Your task to perform on an android device: Search for "custom wallet" on Etsy. Image 0: 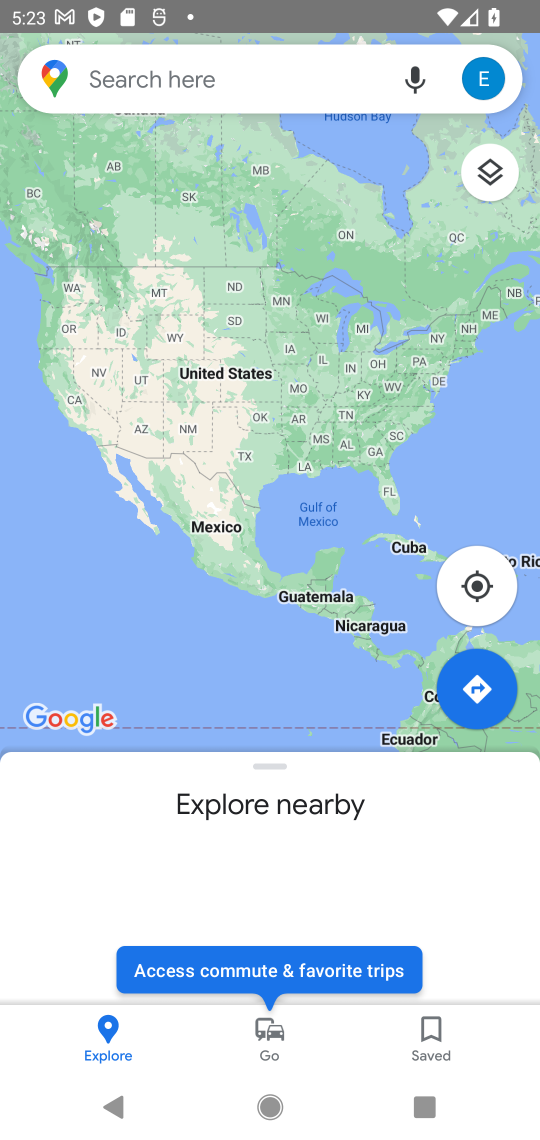
Step 0: press home button
Your task to perform on an android device: Search for "custom wallet" on Etsy. Image 1: 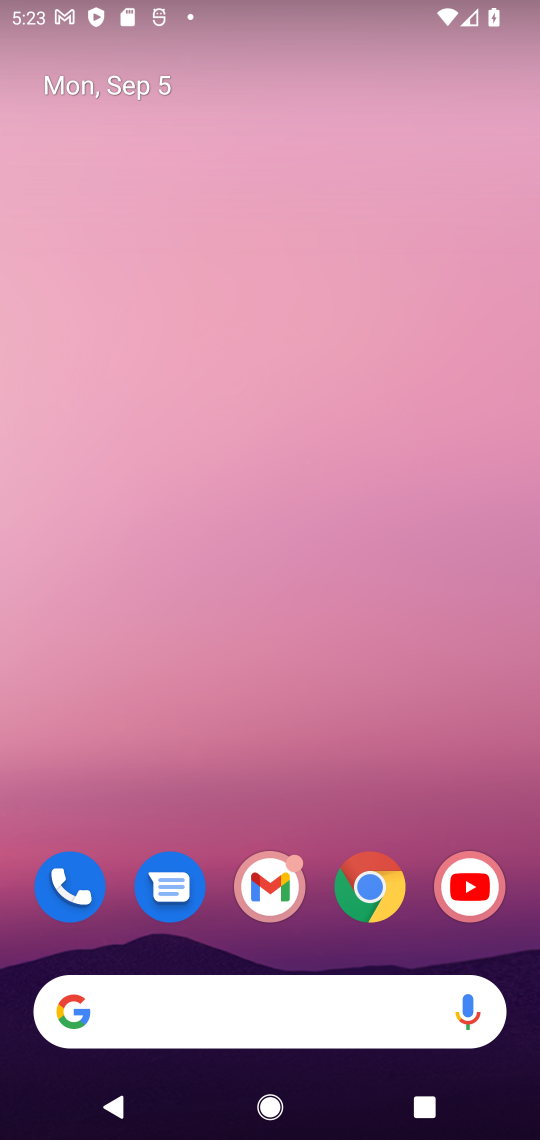
Step 1: drag from (253, 458) to (176, 97)
Your task to perform on an android device: Search for "custom wallet" on Etsy. Image 2: 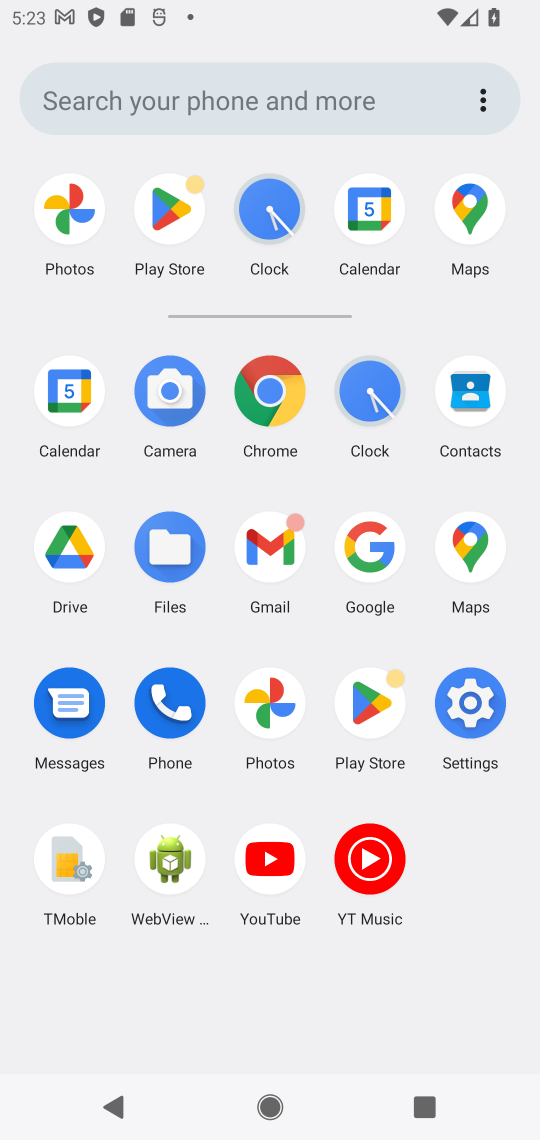
Step 2: click (273, 391)
Your task to perform on an android device: Search for "custom wallet" on Etsy. Image 3: 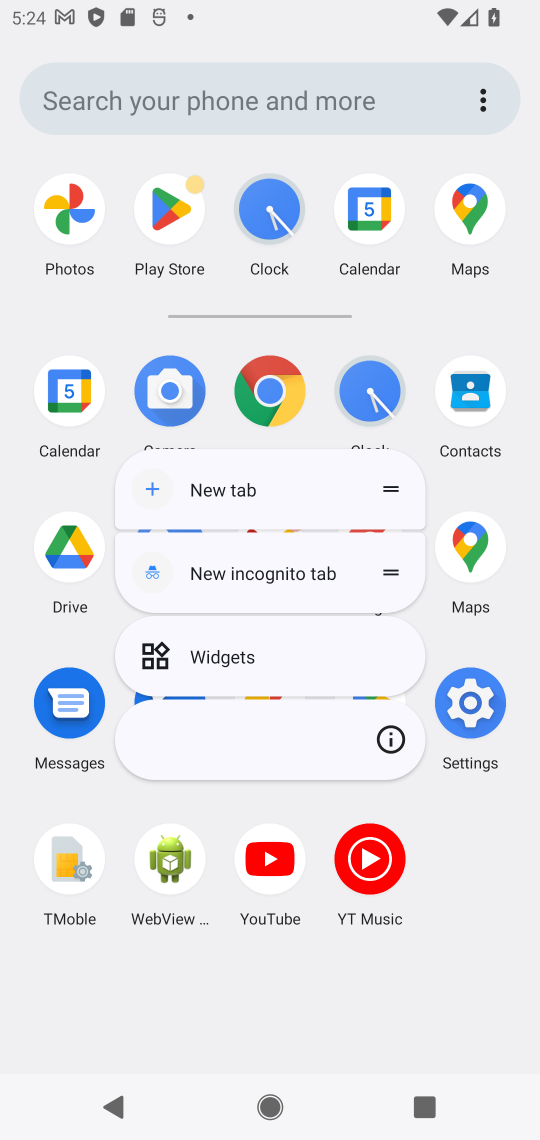
Step 3: click (273, 388)
Your task to perform on an android device: Search for "custom wallet" on Etsy. Image 4: 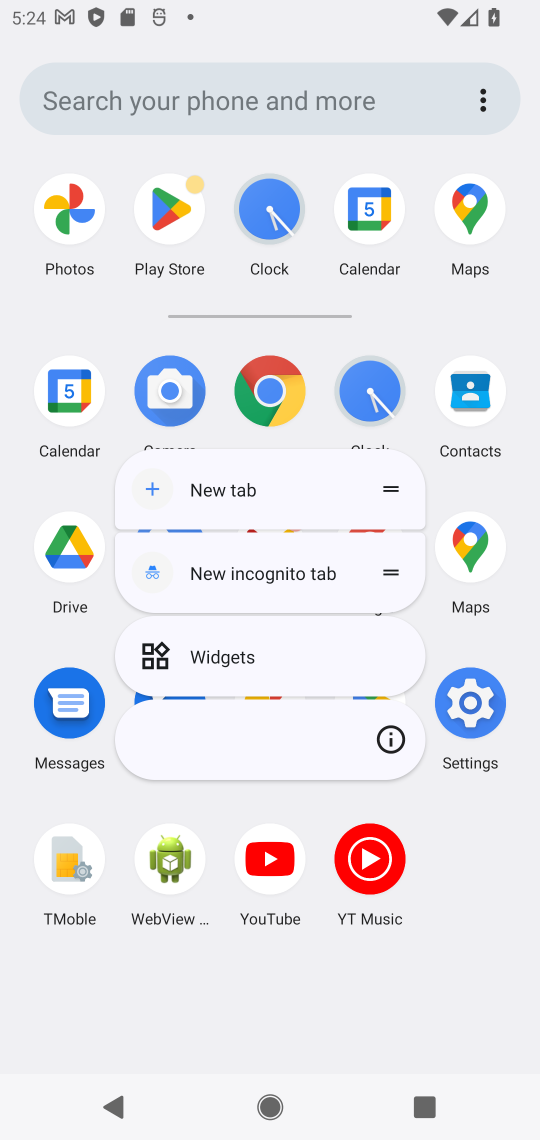
Step 4: click (261, 399)
Your task to perform on an android device: Search for "custom wallet" on Etsy. Image 5: 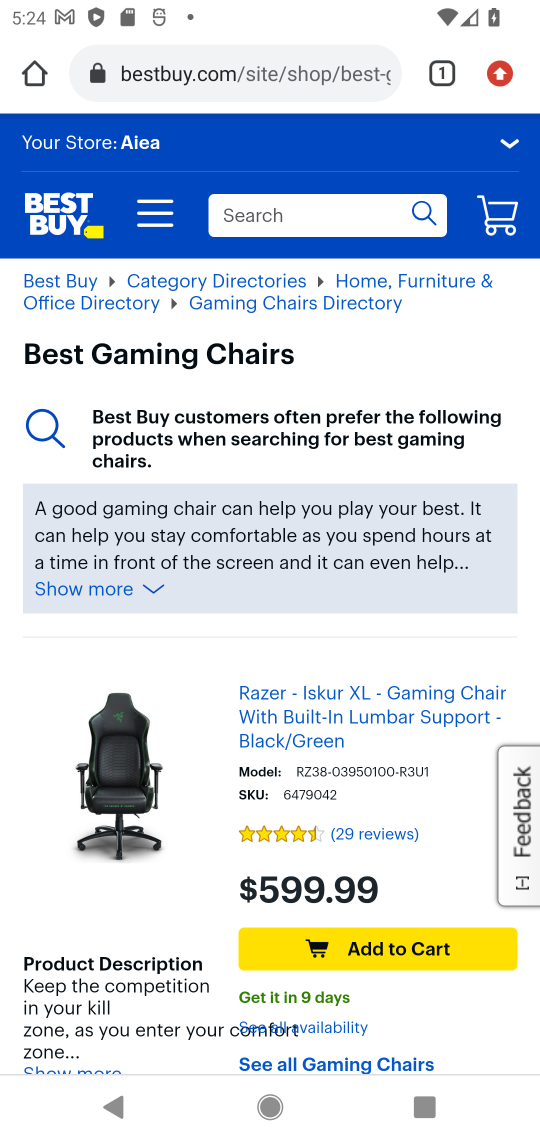
Step 5: click (314, 72)
Your task to perform on an android device: Search for "custom wallet" on Etsy. Image 6: 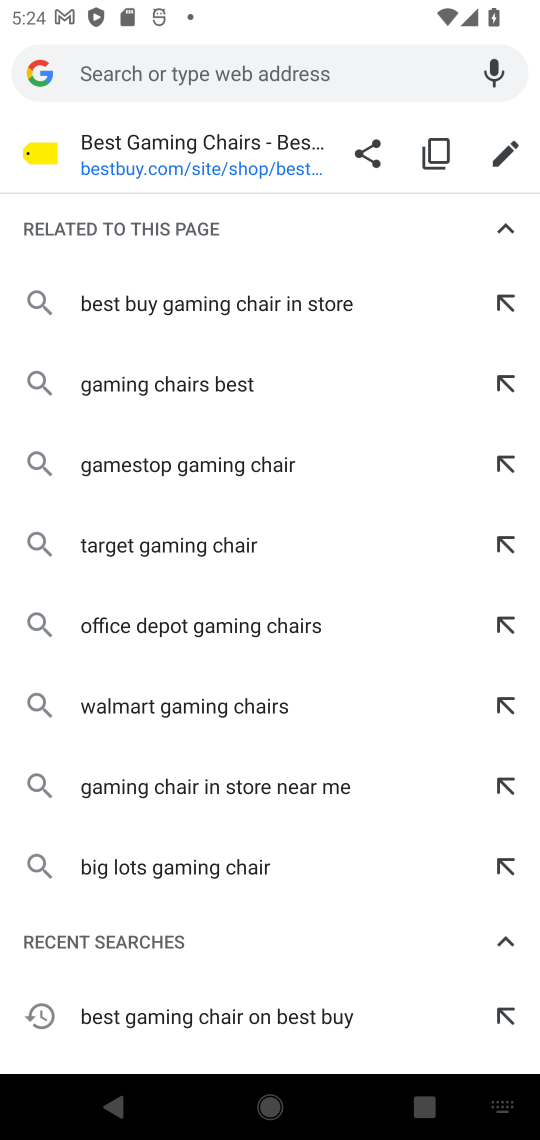
Step 6: type "custom wallet on Etsy"
Your task to perform on an android device: Search for "custom wallet" on Etsy. Image 7: 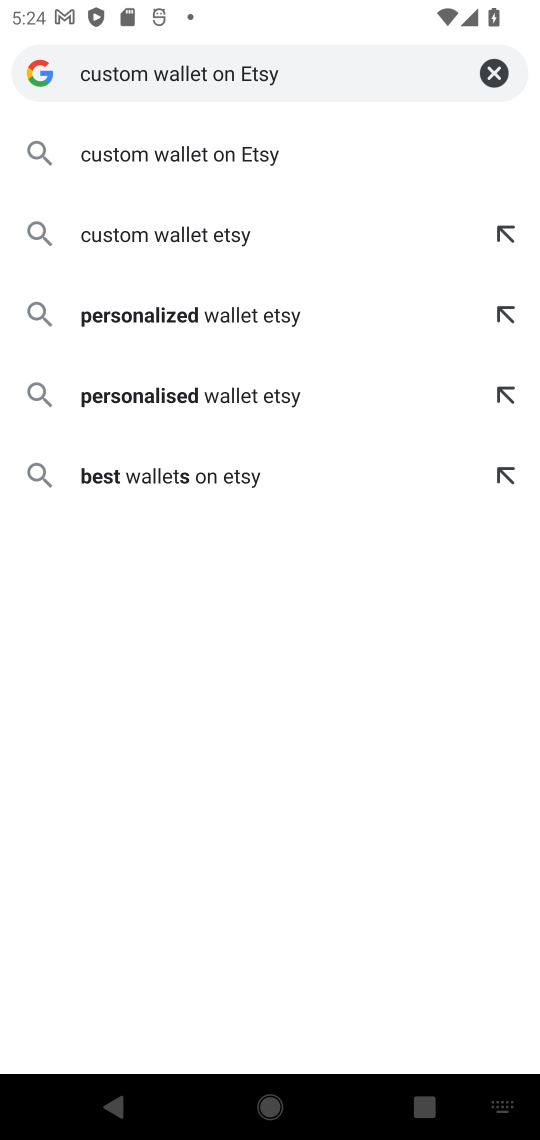
Step 7: press enter
Your task to perform on an android device: Search for "custom wallet" on Etsy. Image 8: 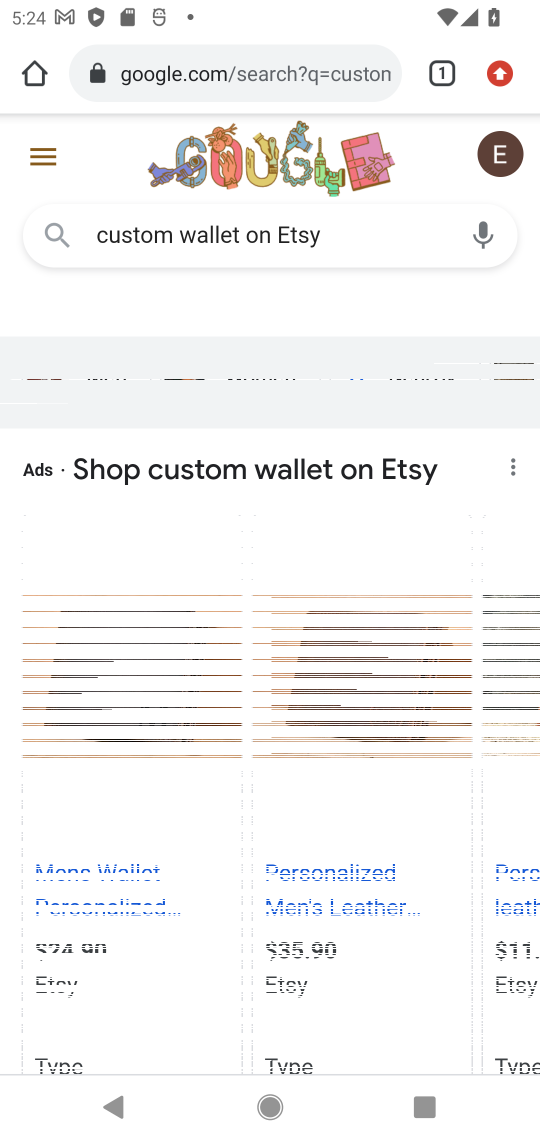
Step 8: drag from (351, 164) to (347, 29)
Your task to perform on an android device: Search for "custom wallet" on Etsy. Image 9: 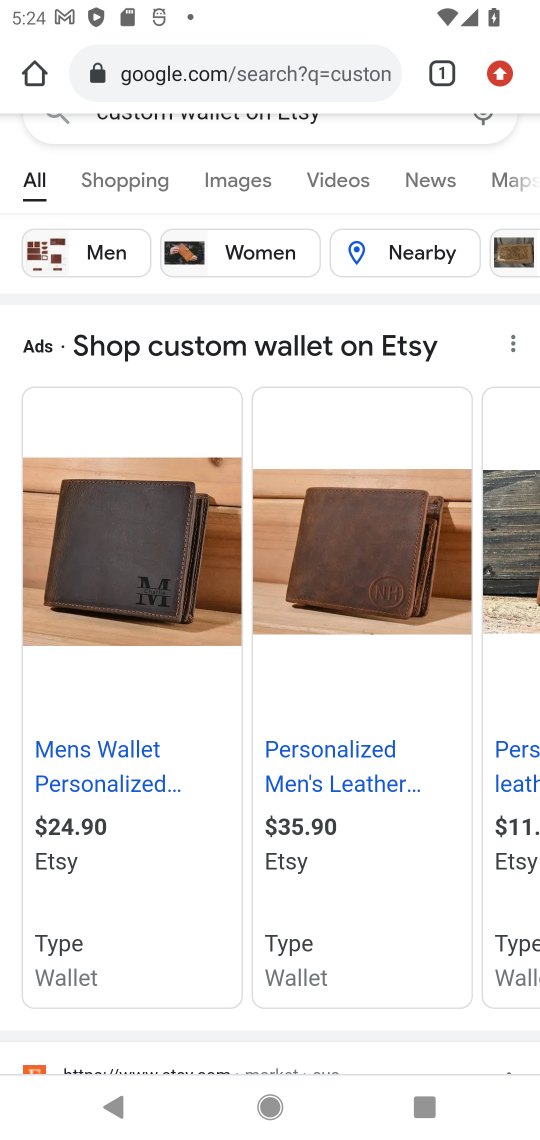
Step 9: drag from (326, 851) to (383, 179)
Your task to perform on an android device: Search for "custom wallet" on Etsy. Image 10: 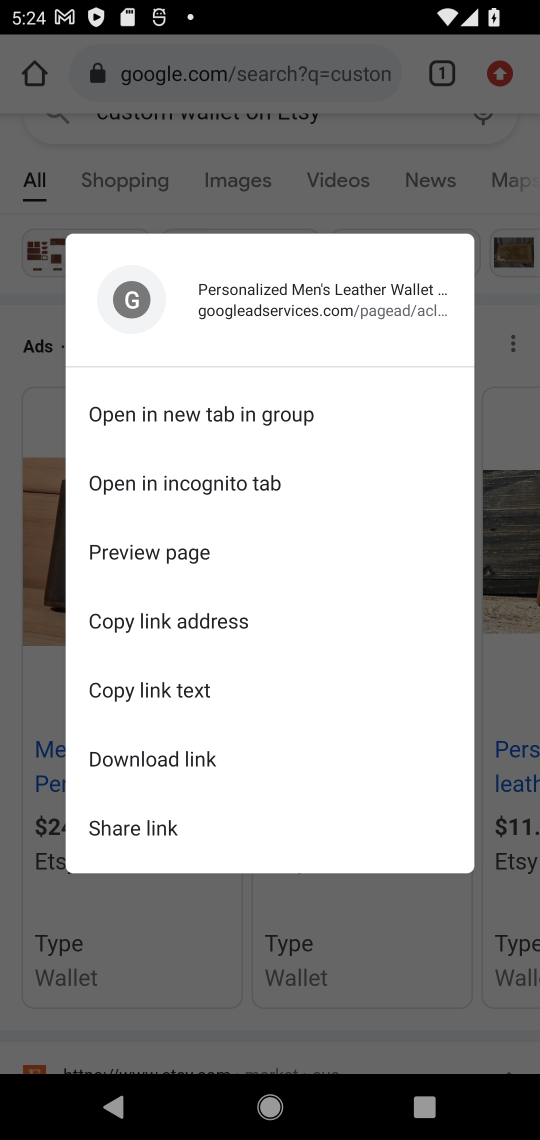
Step 10: click (493, 695)
Your task to perform on an android device: Search for "custom wallet" on Etsy. Image 11: 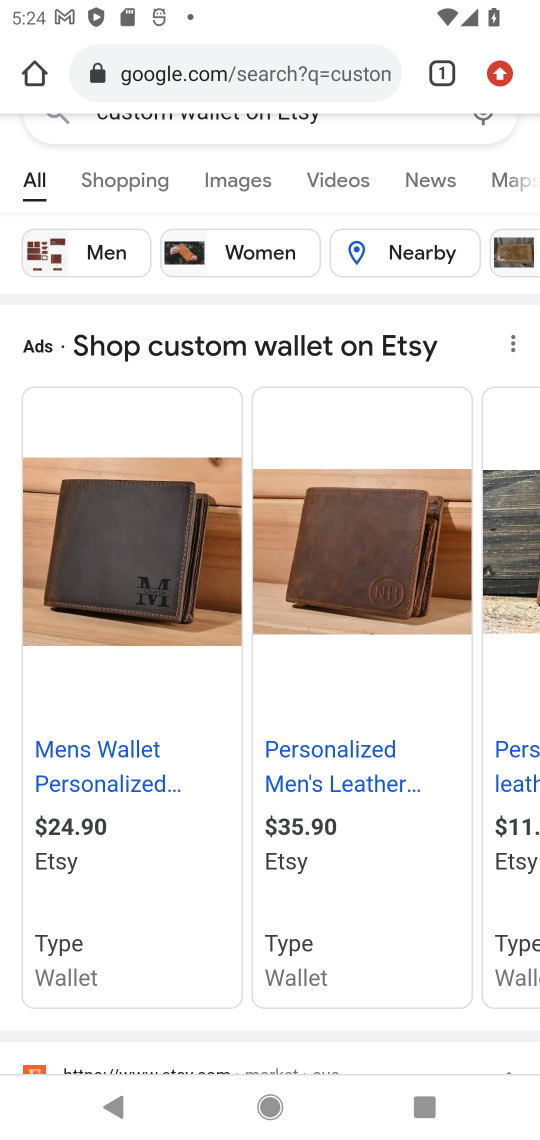
Step 11: drag from (168, 909) to (216, 147)
Your task to perform on an android device: Search for "custom wallet" on Etsy. Image 12: 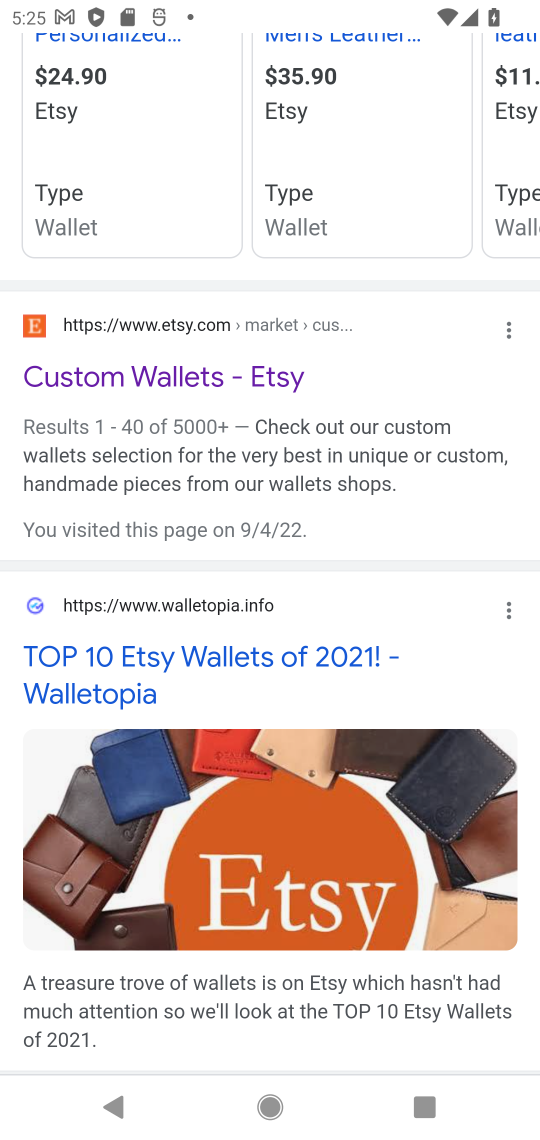
Step 12: click (148, 372)
Your task to perform on an android device: Search for "custom wallet" on Etsy. Image 13: 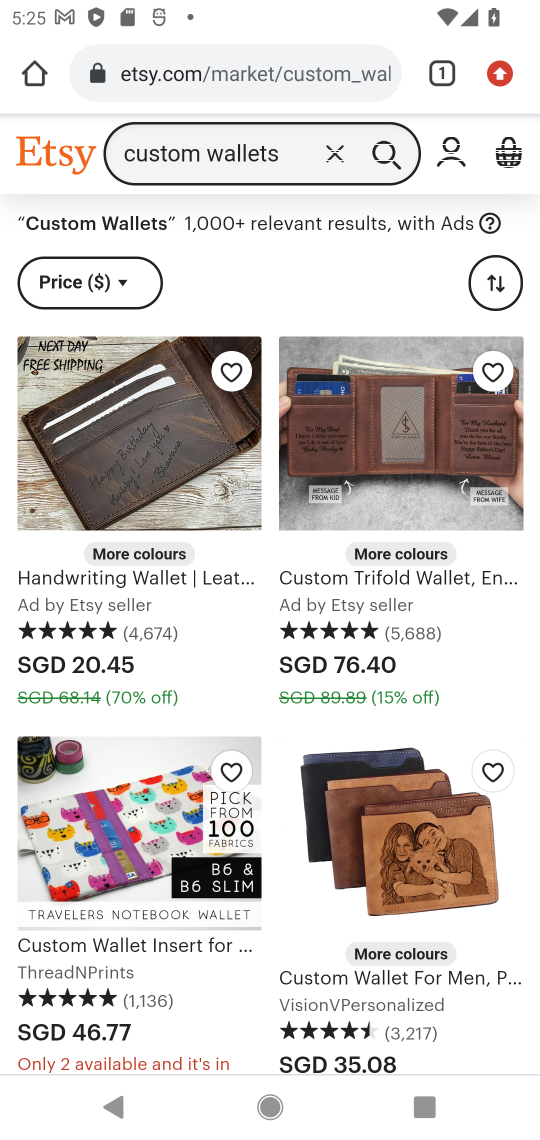
Step 13: task complete